Your task to perform on an android device: Check the settings for the Amazon Alexa app Image 0: 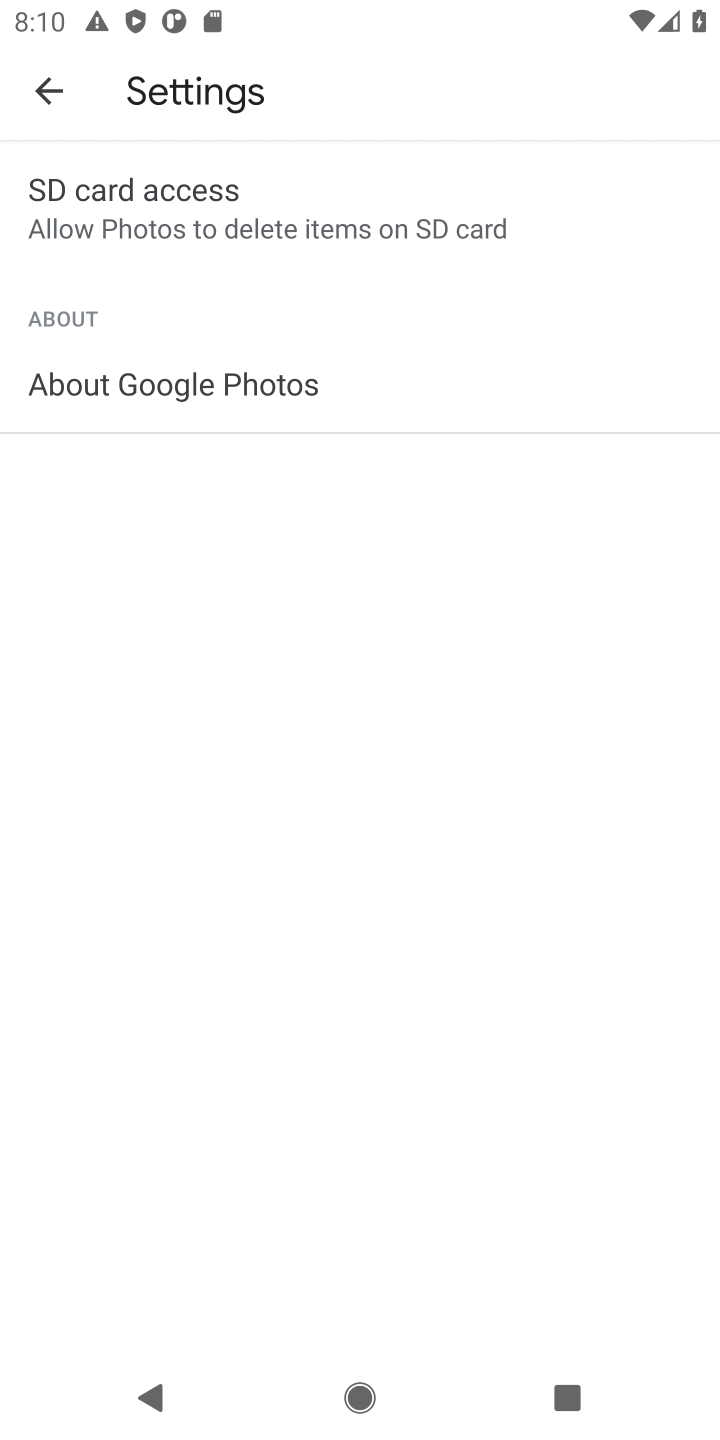
Step 0: press home button
Your task to perform on an android device: Check the settings for the Amazon Alexa app Image 1: 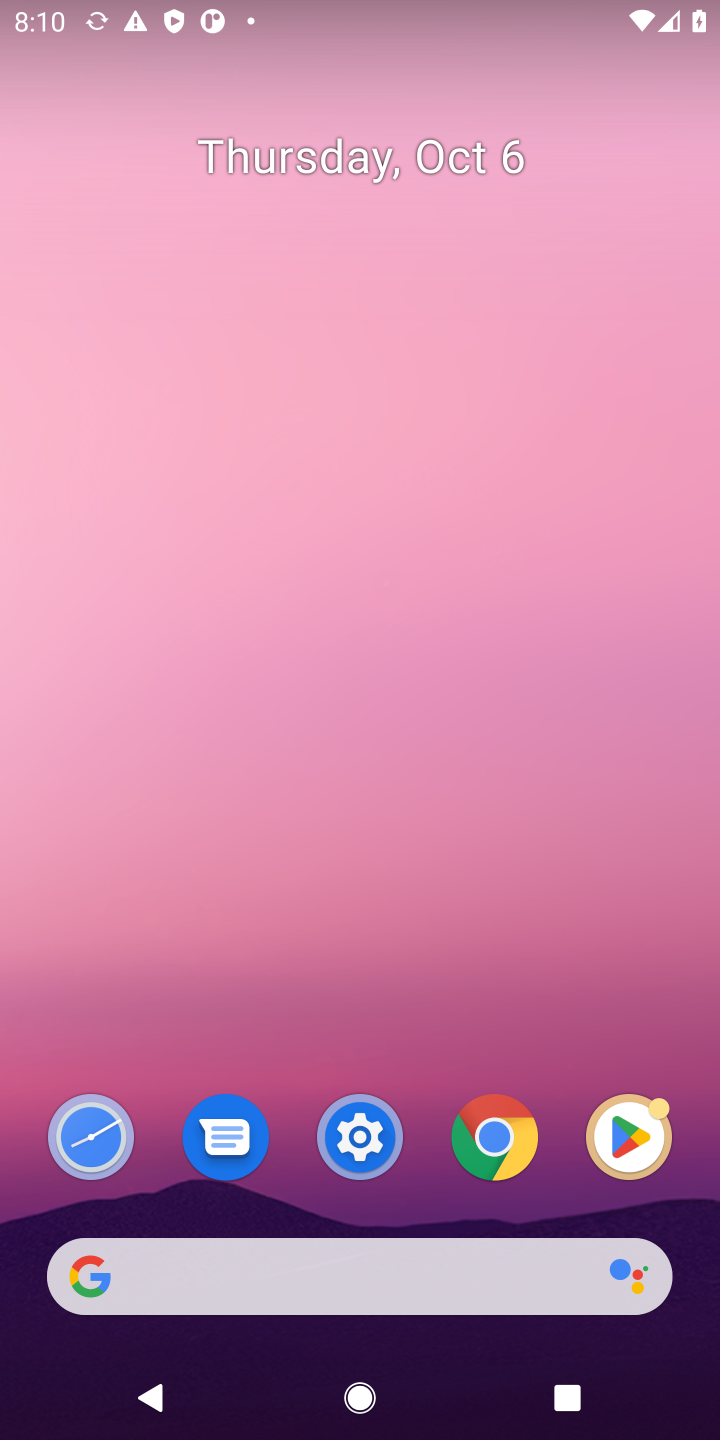
Step 1: task complete